Your task to perform on an android device: Go to Google maps Image 0: 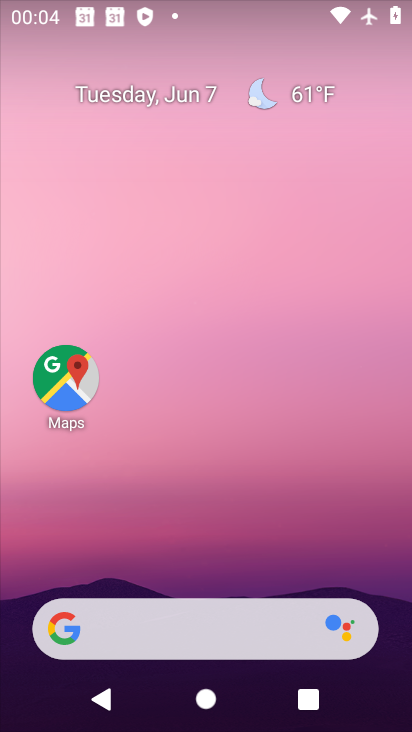
Step 0: click (68, 381)
Your task to perform on an android device: Go to Google maps Image 1: 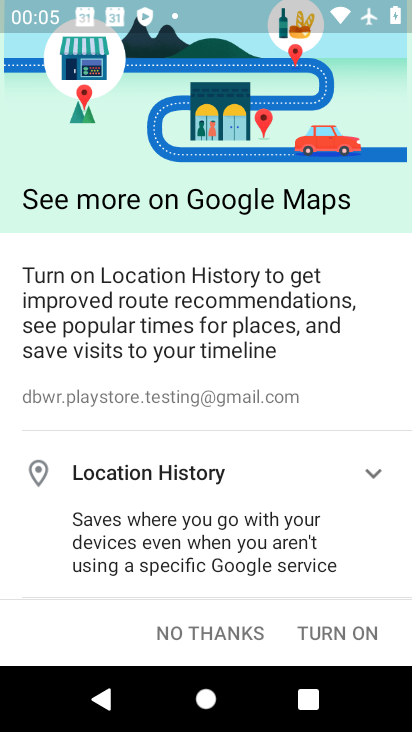
Step 1: task complete